Your task to perform on an android device: Open wifi settings Image 0: 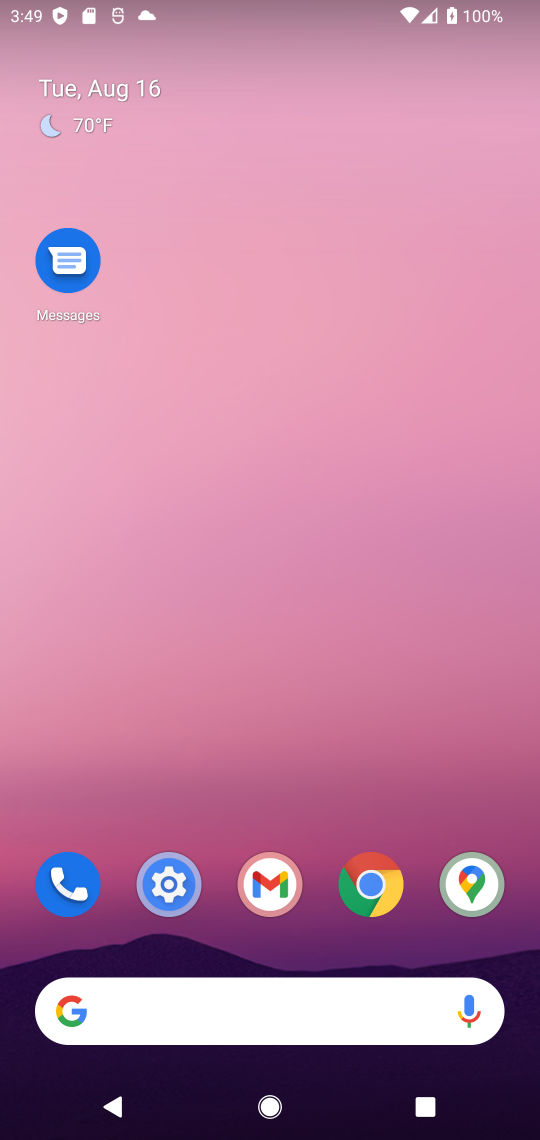
Step 0: click (161, 885)
Your task to perform on an android device: Open wifi settings Image 1: 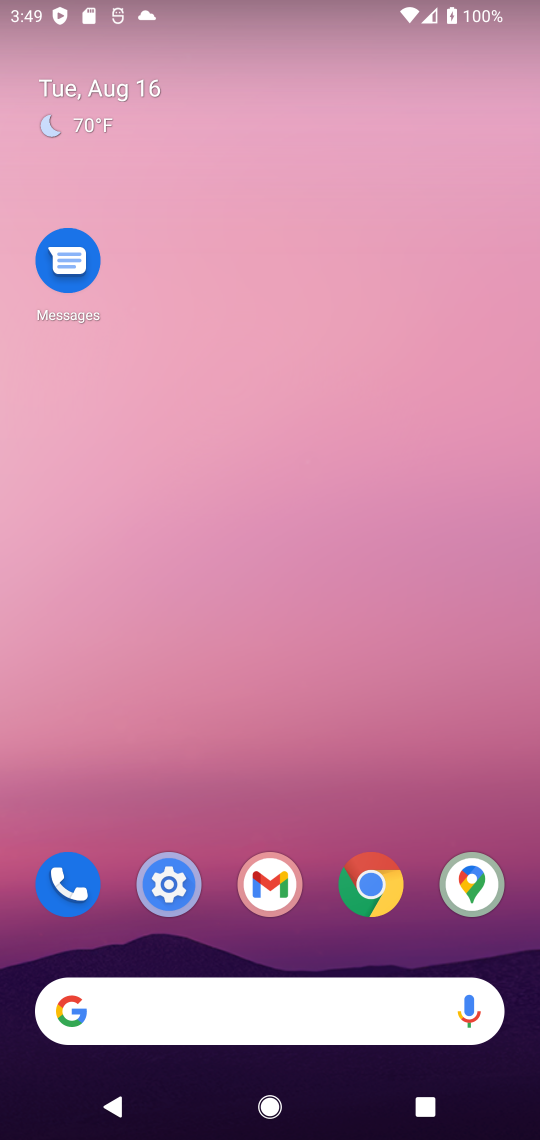
Step 1: click (165, 888)
Your task to perform on an android device: Open wifi settings Image 2: 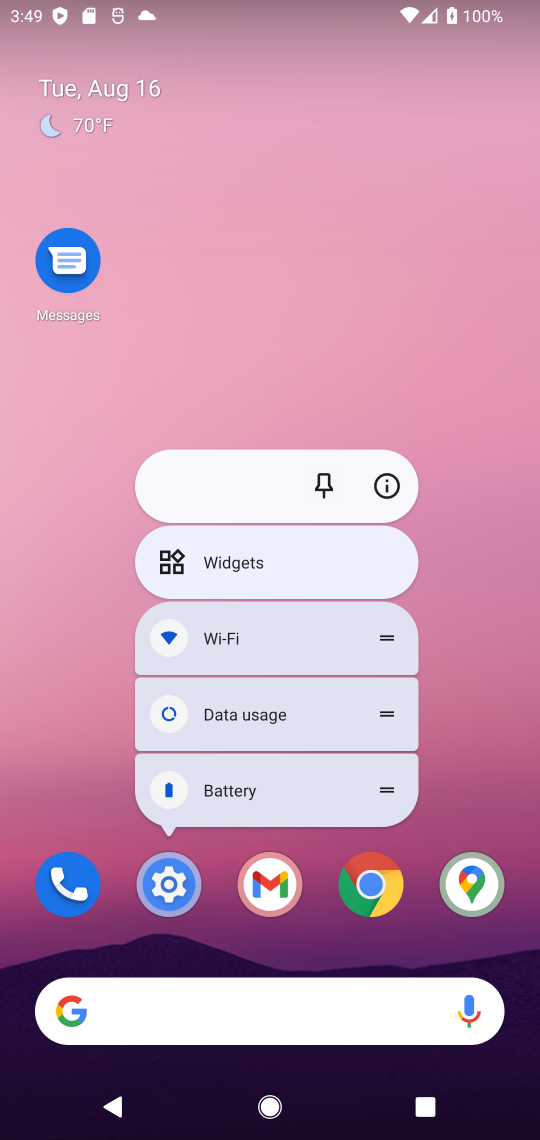
Step 2: click (165, 898)
Your task to perform on an android device: Open wifi settings Image 3: 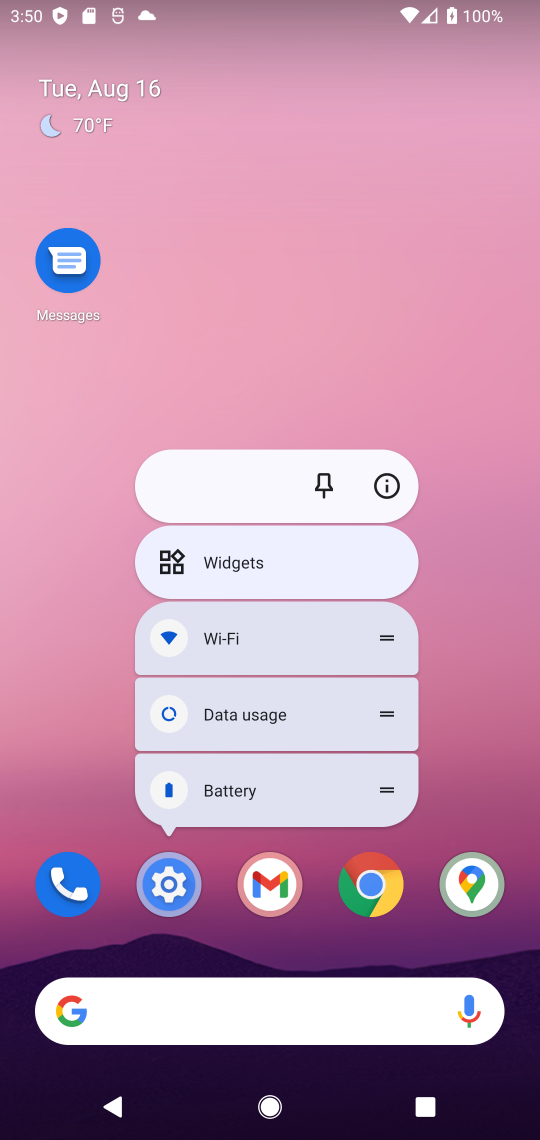
Step 3: task complete